Your task to perform on an android device: Go to ESPN.com Image 0: 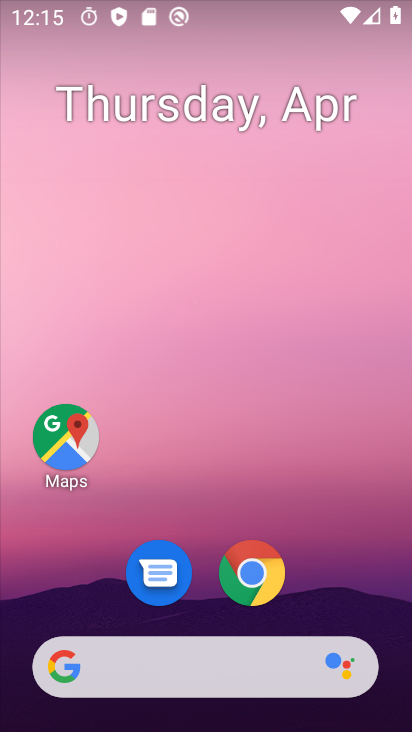
Step 0: drag from (371, 438) to (373, 156)
Your task to perform on an android device: Go to ESPN.com Image 1: 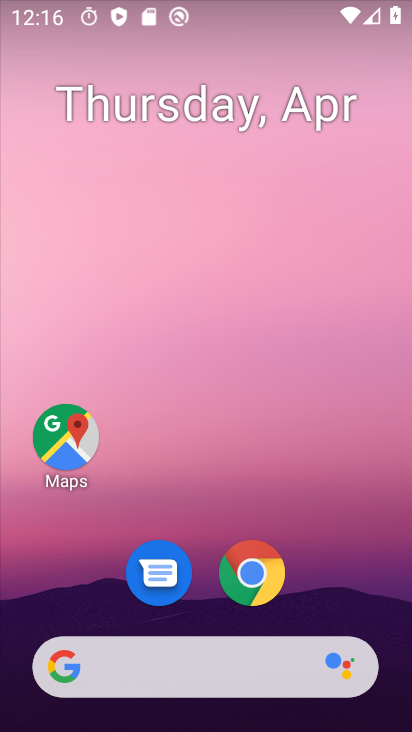
Step 1: drag from (348, 233) to (337, 149)
Your task to perform on an android device: Go to ESPN.com Image 2: 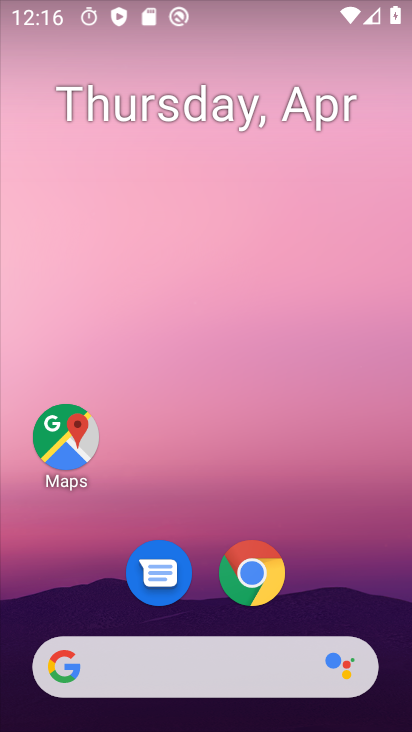
Step 2: drag from (334, 288) to (329, 145)
Your task to perform on an android device: Go to ESPN.com Image 3: 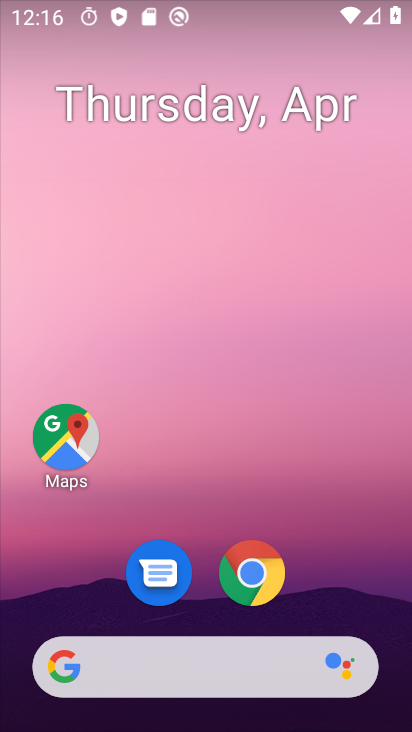
Step 3: drag from (372, 574) to (343, 229)
Your task to perform on an android device: Go to ESPN.com Image 4: 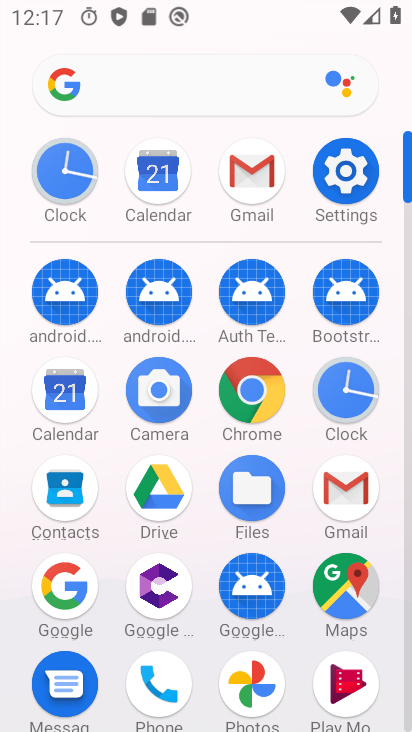
Step 4: click (250, 389)
Your task to perform on an android device: Go to ESPN.com Image 5: 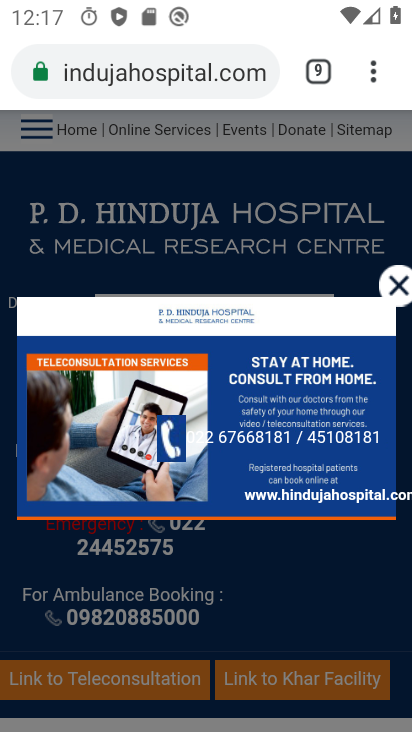
Step 5: type "ESPN.com"
Your task to perform on an android device: Go to ESPN.com Image 6: 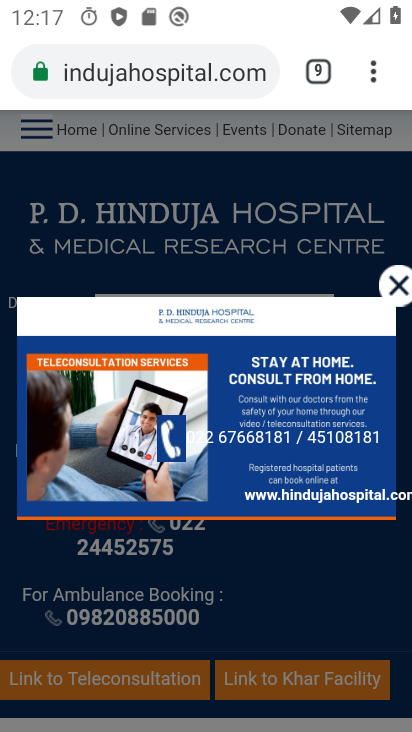
Step 6: click (242, 78)
Your task to perform on an android device: Go to ESPN.com Image 7: 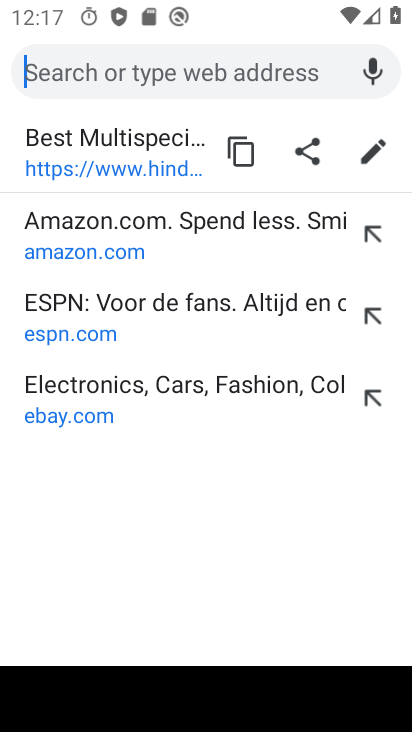
Step 7: type "ESPN.com"
Your task to perform on an android device: Go to ESPN.com Image 8: 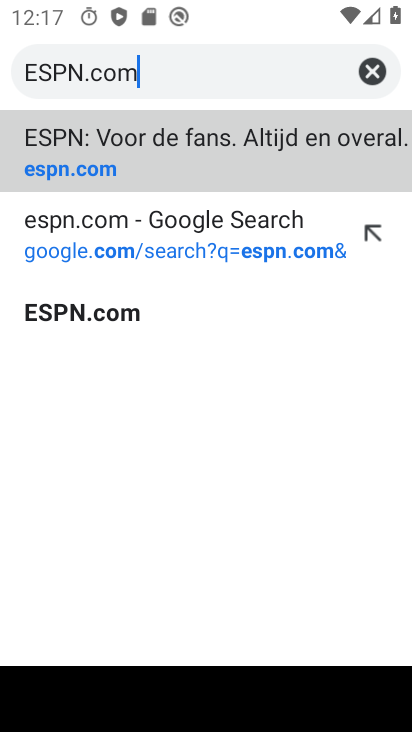
Step 8: click (91, 157)
Your task to perform on an android device: Go to ESPN.com Image 9: 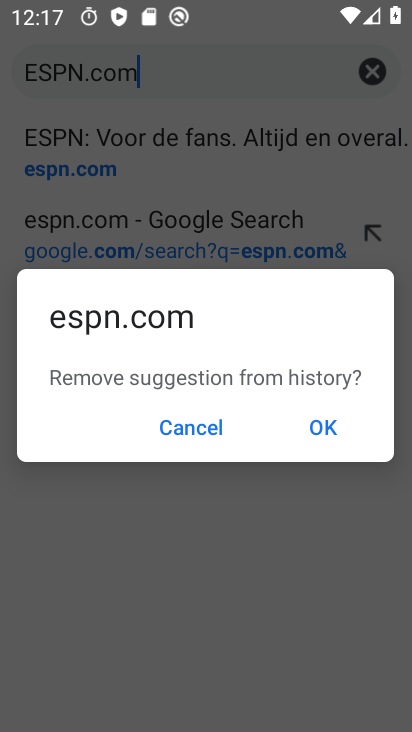
Step 9: click (320, 433)
Your task to perform on an android device: Go to ESPN.com Image 10: 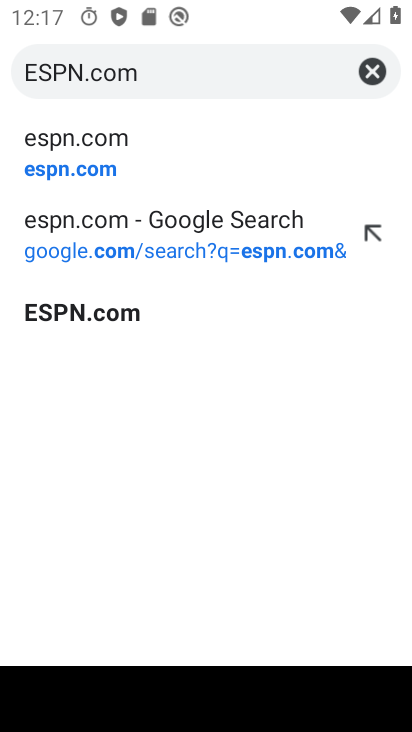
Step 10: click (57, 313)
Your task to perform on an android device: Go to ESPN.com Image 11: 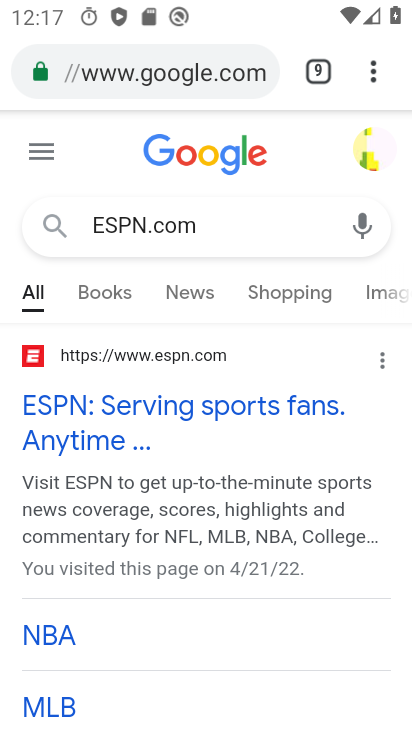
Step 11: task complete